Your task to perform on an android device: see creations saved in the google photos Image 0: 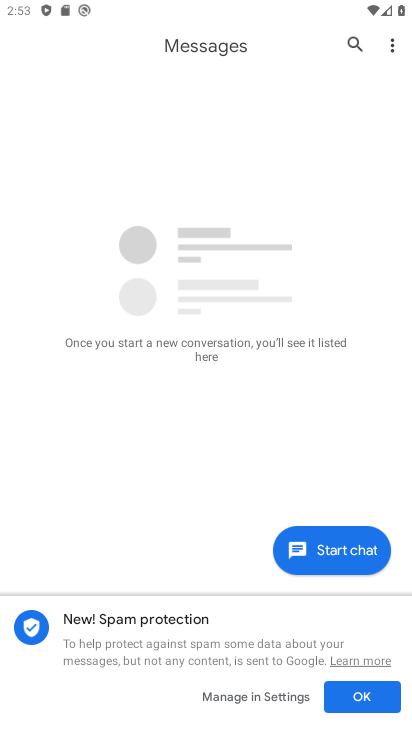
Step 0: press home button
Your task to perform on an android device: see creations saved in the google photos Image 1: 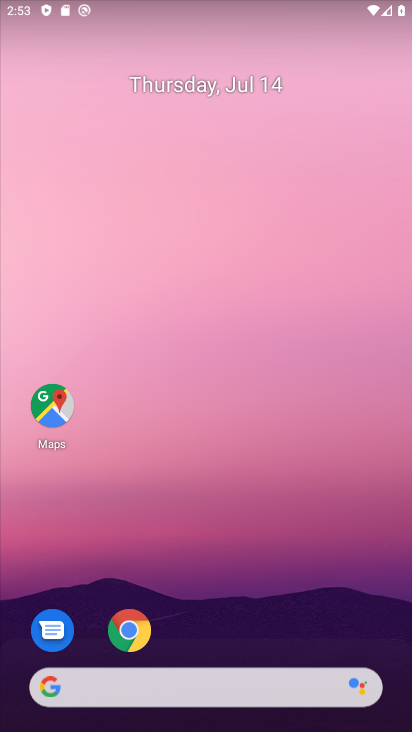
Step 1: drag from (390, 669) to (333, 235)
Your task to perform on an android device: see creations saved in the google photos Image 2: 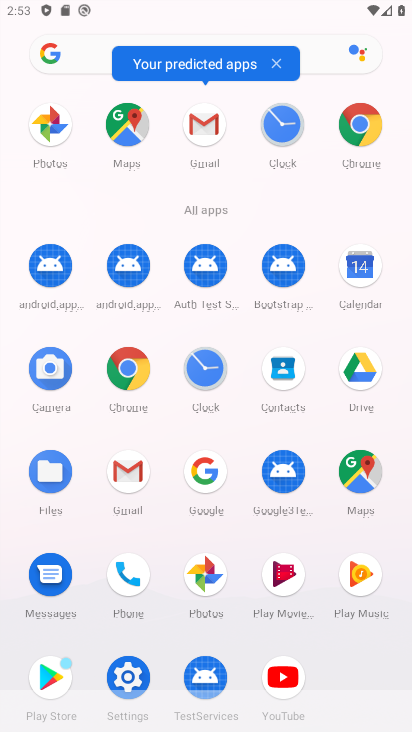
Step 2: click (195, 574)
Your task to perform on an android device: see creations saved in the google photos Image 3: 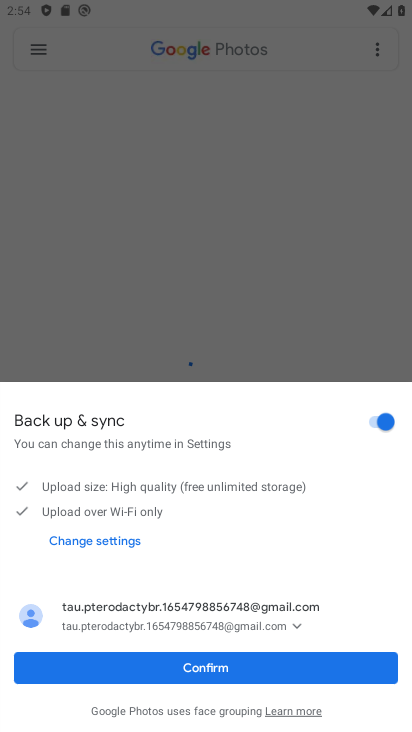
Step 3: click (219, 666)
Your task to perform on an android device: see creations saved in the google photos Image 4: 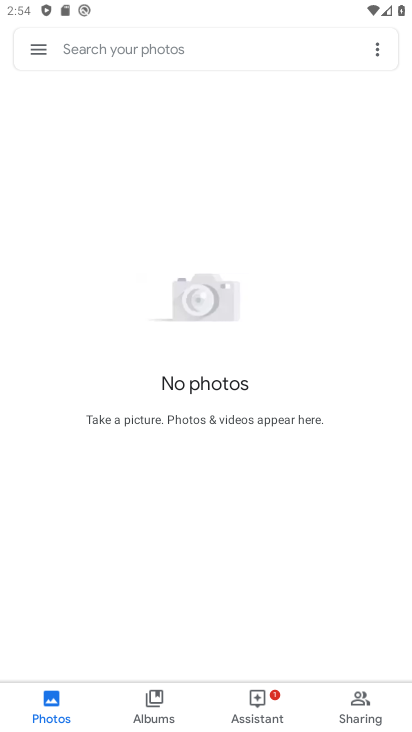
Step 4: task complete